Your task to perform on an android device: Open the stopwatch Image 0: 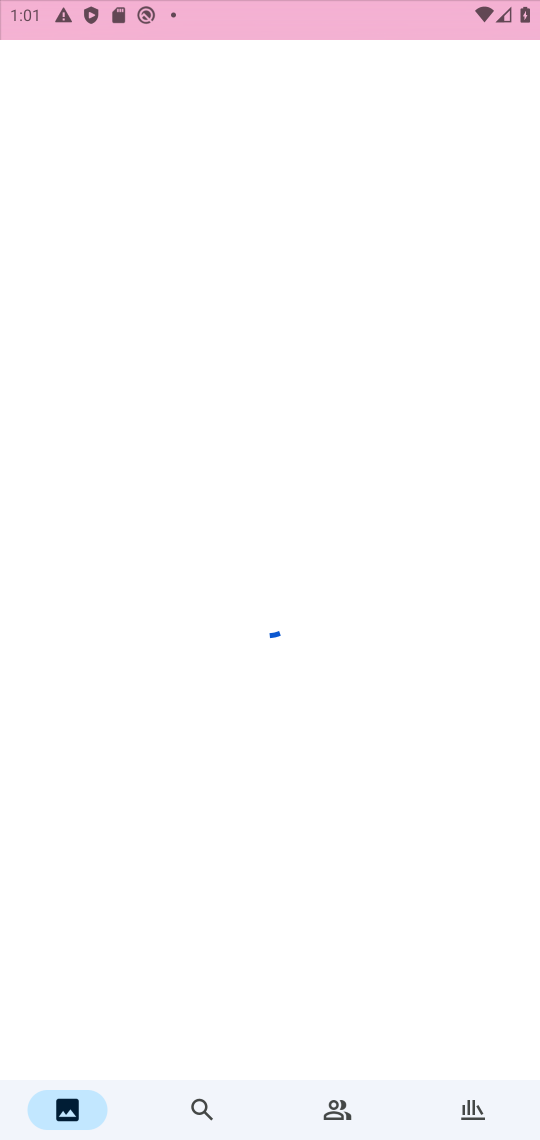
Step 0: press home button
Your task to perform on an android device: Open the stopwatch Image 1: 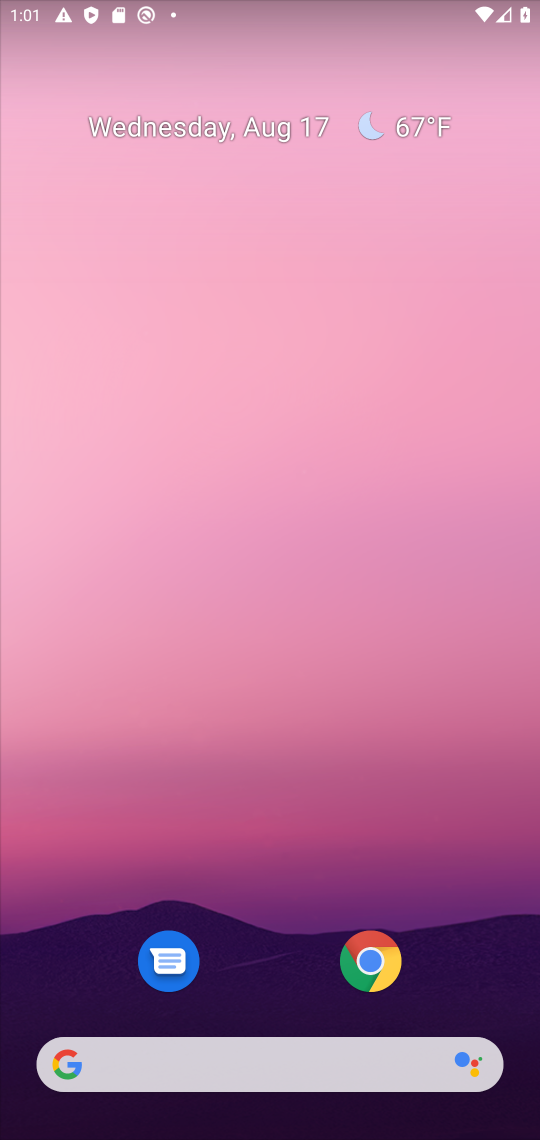
Step 1: drag from (278, 1006) to (319, 541)
Your task to perform on an android device: Open the stopwatch Image 2: 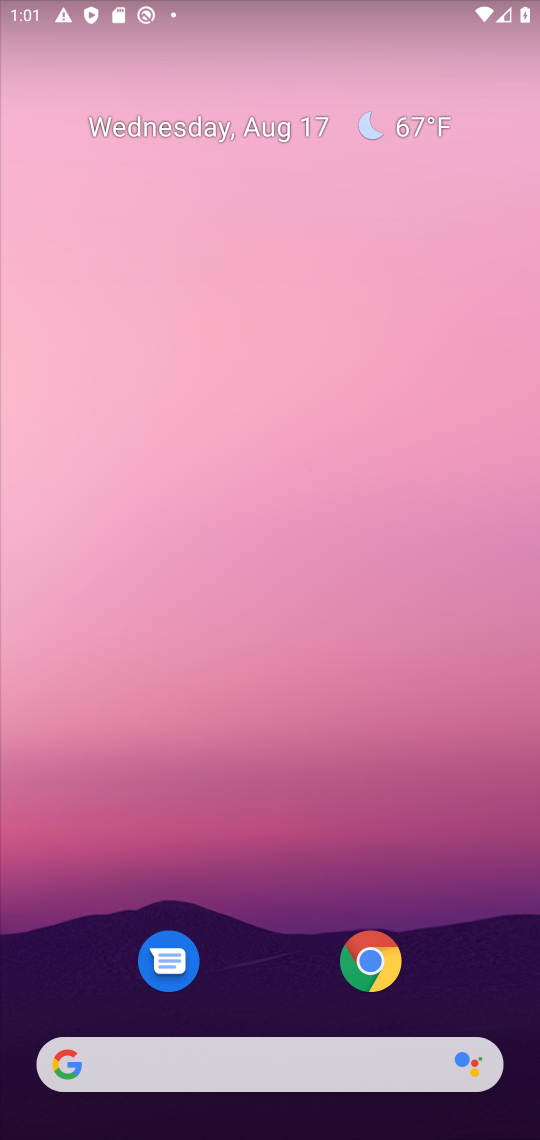
Step 2: drag from (248, 996) to (286, 312)
Your task to perform on an android device: Open the stopwatch Image 3: 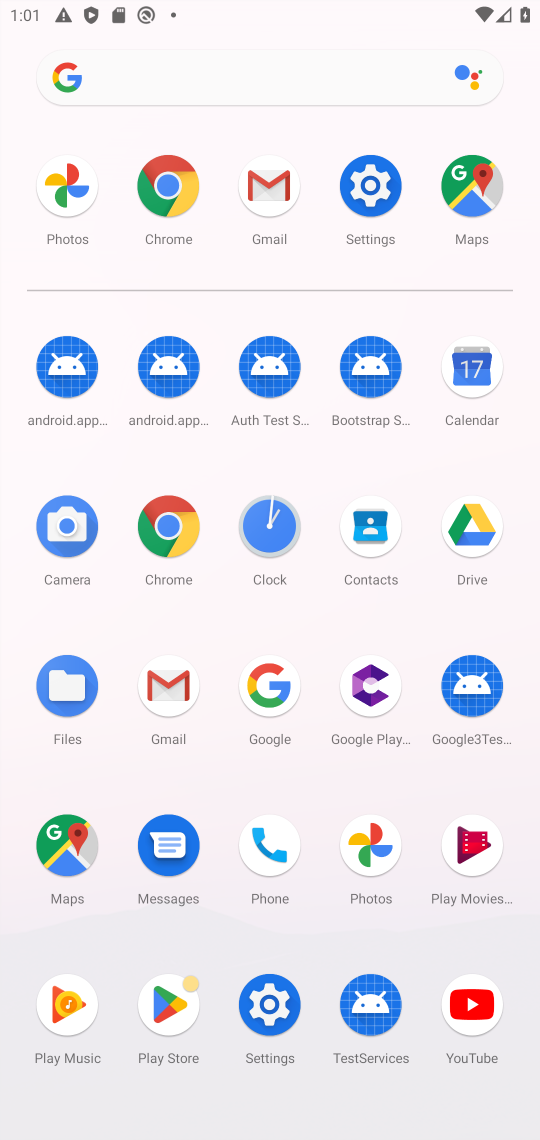
Step 3: click (279, 542)
Your task to perform on an android device: Open the stopwatch Image 4: 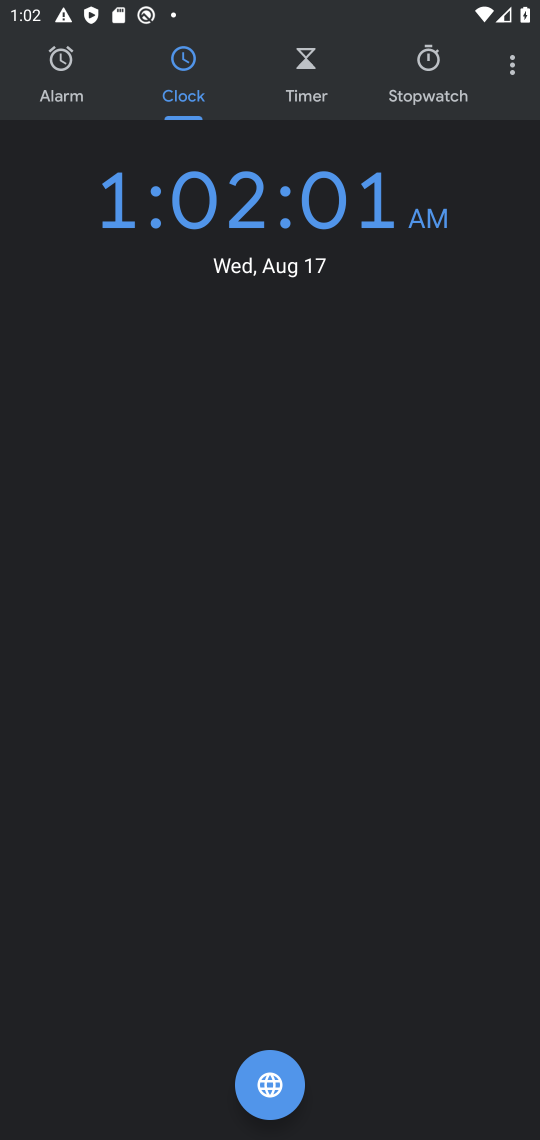
Step 4: click (516, 93)
Your task to perform on an android device: Open the stopwatch Image 5: 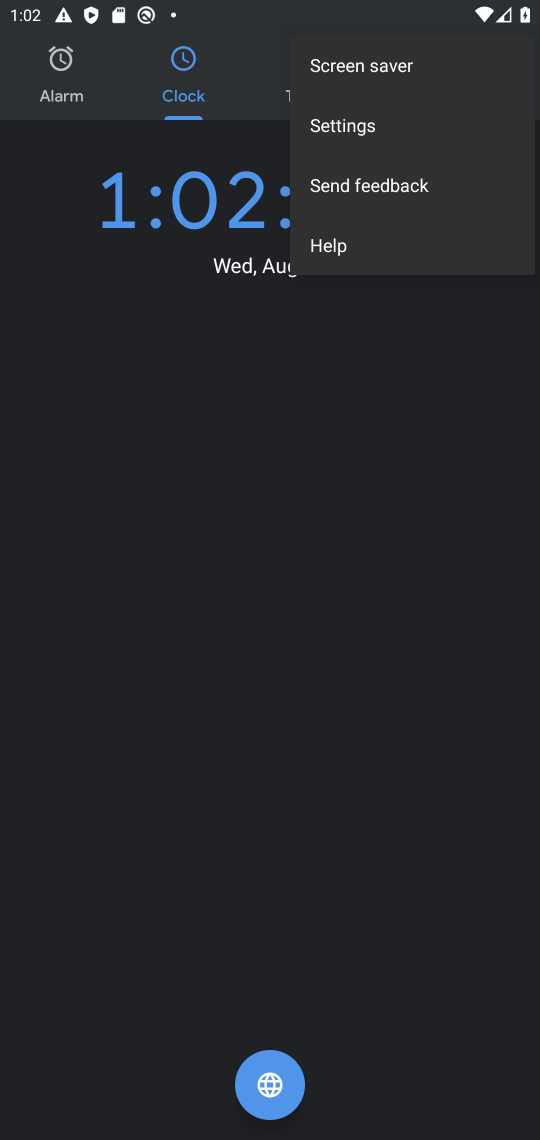
Step 5: click (342, 394)
Your task to perform on an android device: Open the stopwatch Image 6: 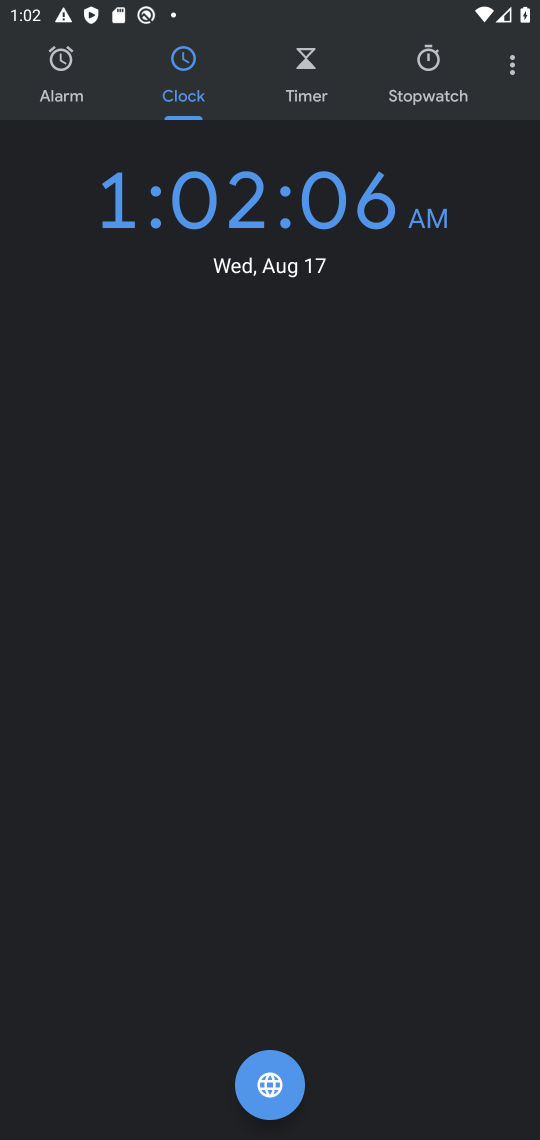
Step 6: click (424, 56)
Your task to perform on an android device: Open the stopwatch Image 7: 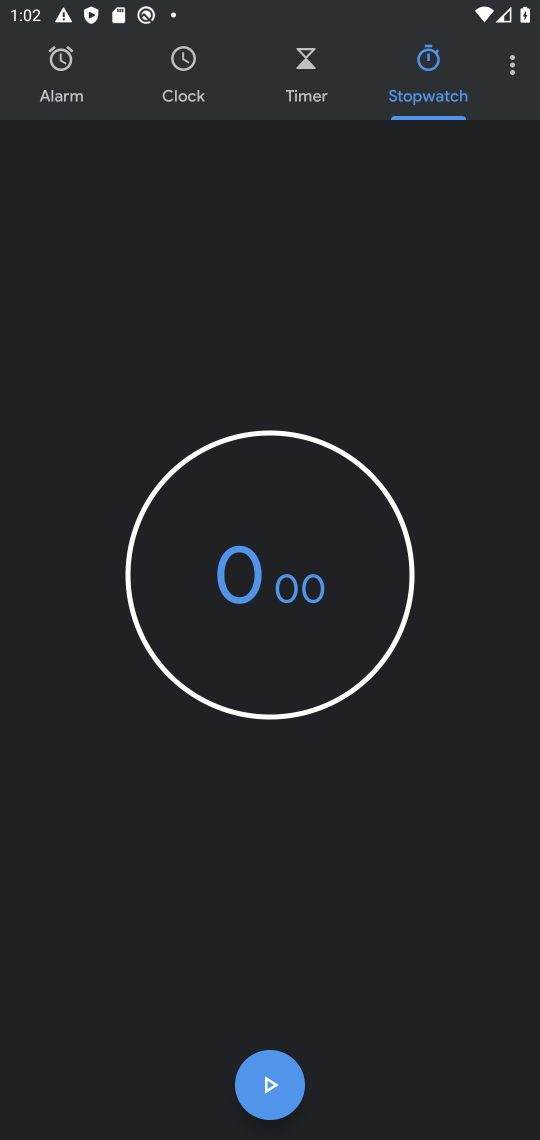
Step 7: task complete